Your task to perform on an android device: find photos in the google photos app Image 0: 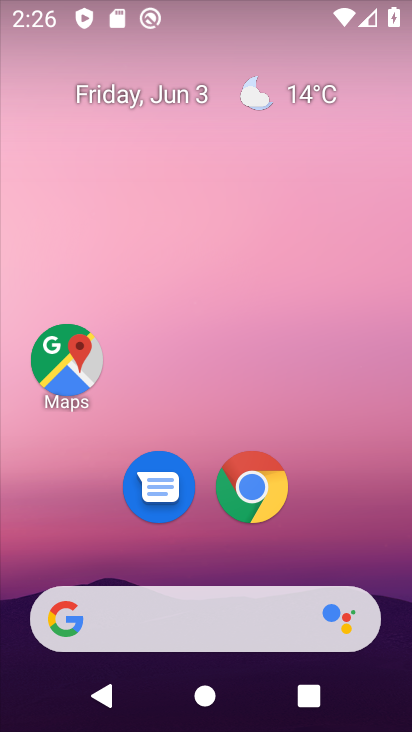
Step 0: drag from (226, 585) to (237, 60)
Your task to perform on an android device: find photos in the google photos app Image 1: 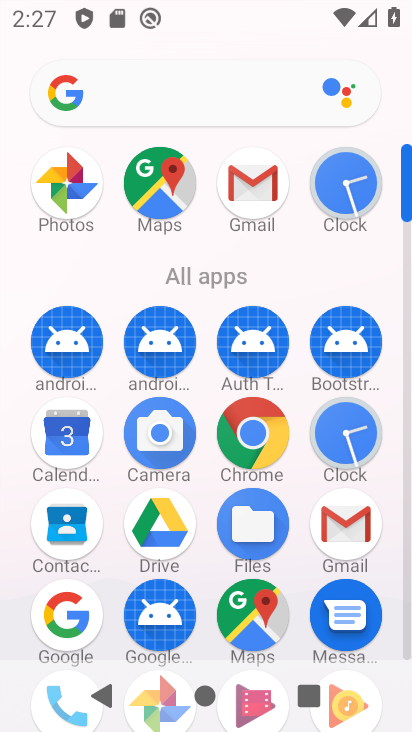
Step 1: drag from (160, 514) to (169, 146)
Your task to perform on an android device: find photos in the google photos app Image 2: 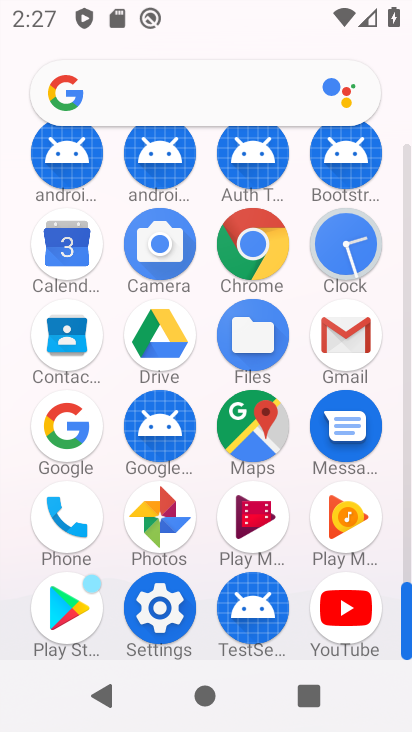
Step 2: click (175, 538)
Your task to perform on an android device: find photos in the google photos app Image 3: 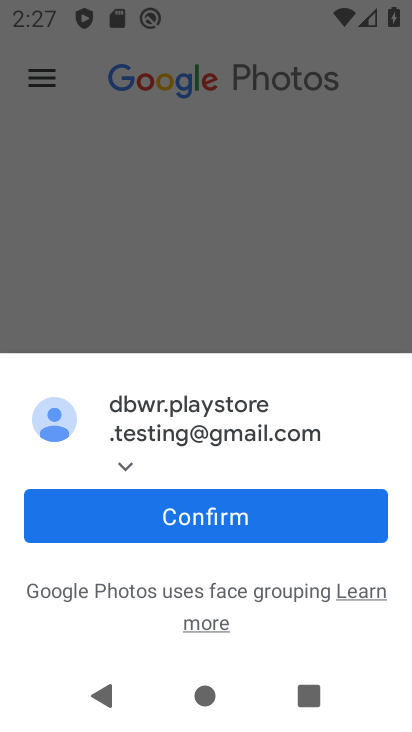
Step 3: click (210, 517)
Your task to perform on an android device: find photos in the google photos app Image 4: 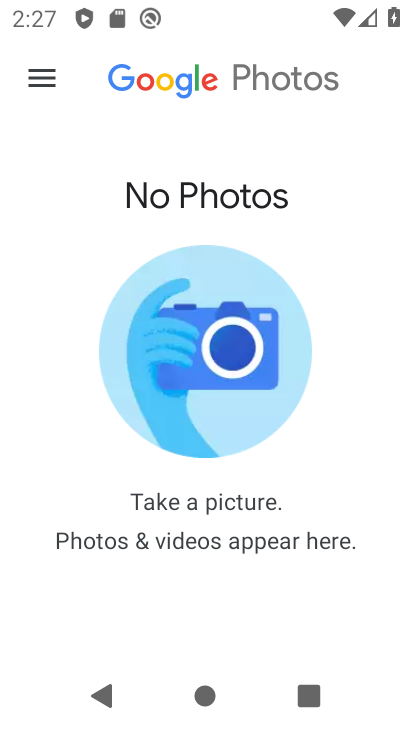
Step 4: task complete